Your task to perform on an android device: delete a single message in the gmail app Image 0: 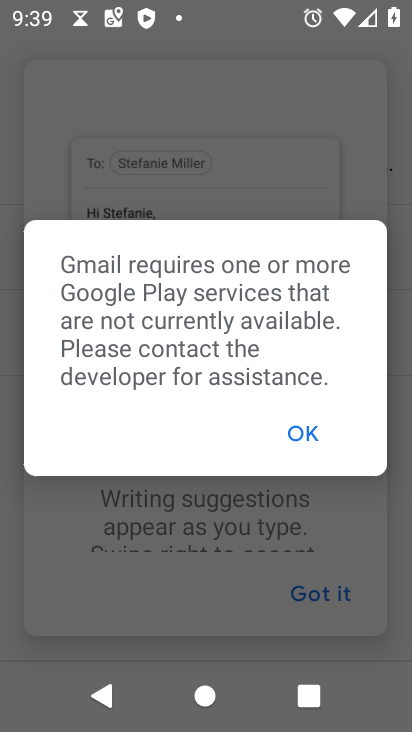
Step 0: press home button
Your task to perform on an android device: delete a single message in the gmail app Image 1: 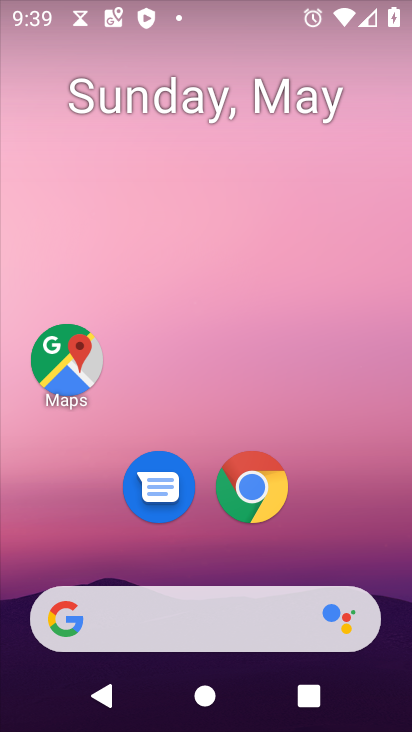
Step 1: drag from (400, 516) to (404, 193)
Your task to perform on an android device: delete a single message in the gmail app Image 2: 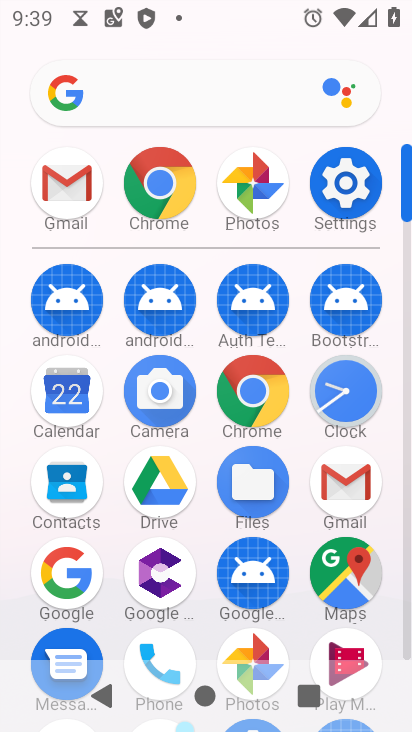
Step 2: click (354, 492)
Your task to perform on an android device: delete a single message in the gmail app Image 3: 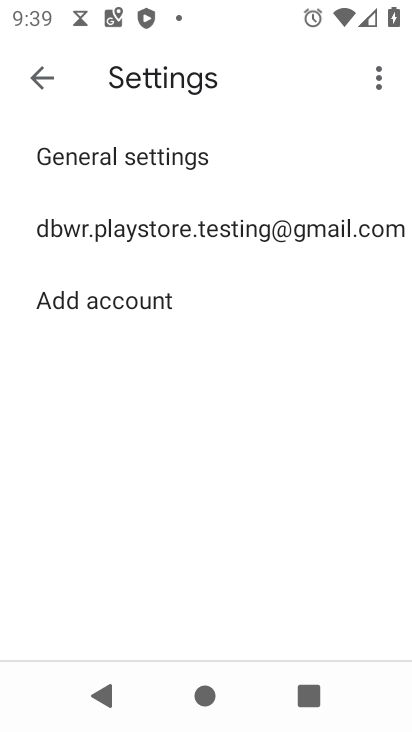
Step 3: click (33, 81)
Your task to perform on an android device: delete a single message in the gmail app Image 4: 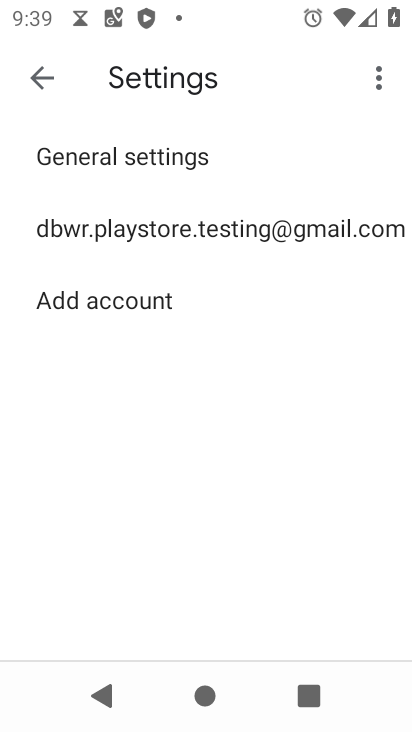
Step 4: click (33, 81)
Your task to perform on an android device: delete a single message in the gmail app Image 5: 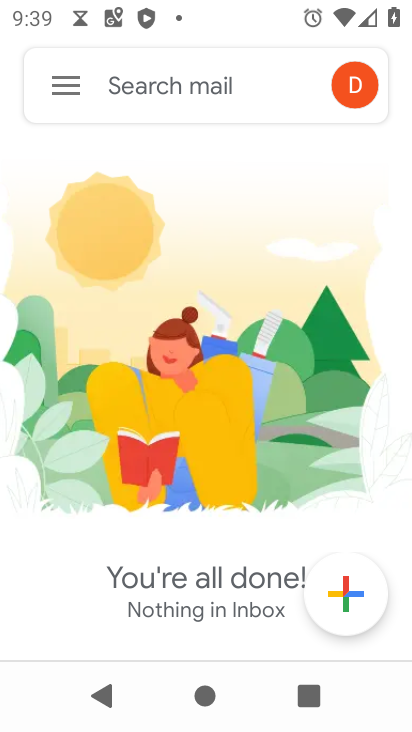
Step 5: task complete